Your task to perform on an android device: check the backup settings in the google photos Image 0: 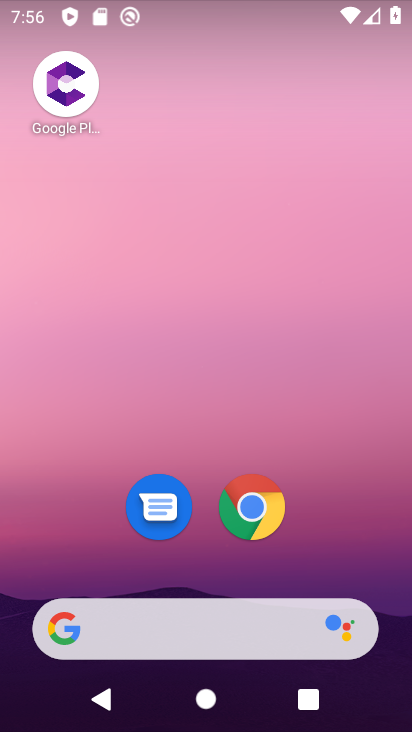
Step 0: drag from (317, 543) to (332, 85)
Your task to perform on an android device: check the backup settings in the google photos Image 1: 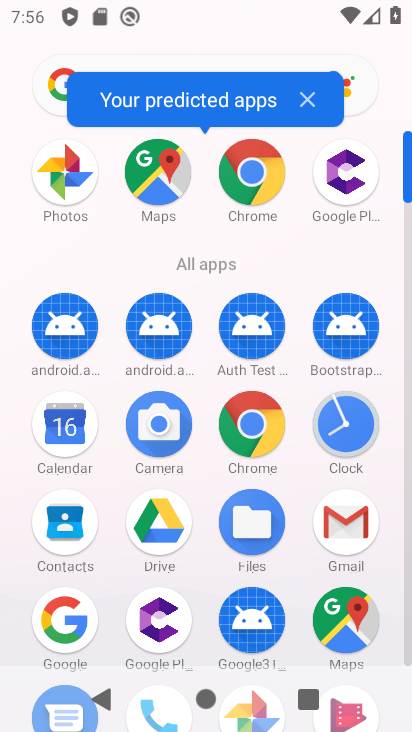
Step 1: drag from (283, 306) to (305, 39)
Your task to perform on an android device: check the backup settings in the google photos Image 2: 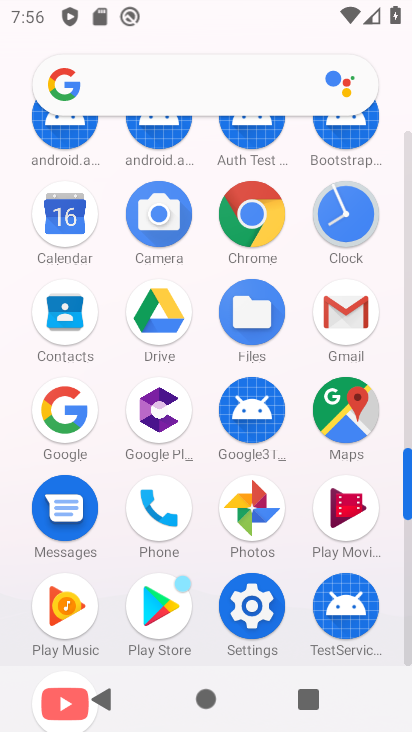
Step 2: click (242, 509)
Your task to perform on an android device: check the backup settings in the google photos Image 3: 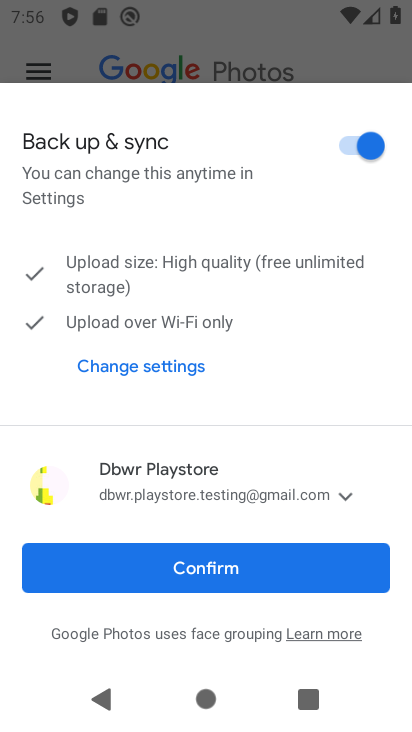
Step 3: click (251, 568)
Your task to perform on an android device: check the backup settings in the google photos Image 4: 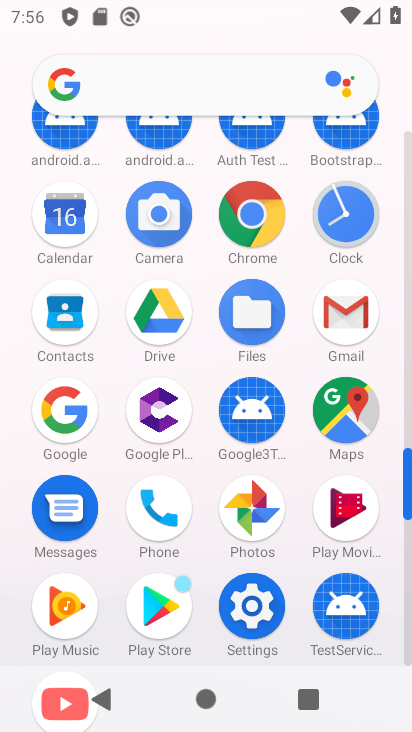
Step 4: click (253, 514)
Your task to perform on an android device: check the backup settings in the google photos Image 5: 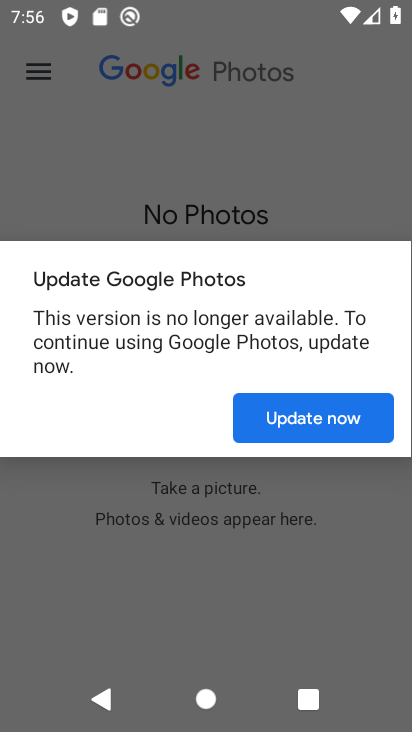
Step 5: click (292, 426)
Your task to perform on an android device: check the backup settings in the google photos Image 6: 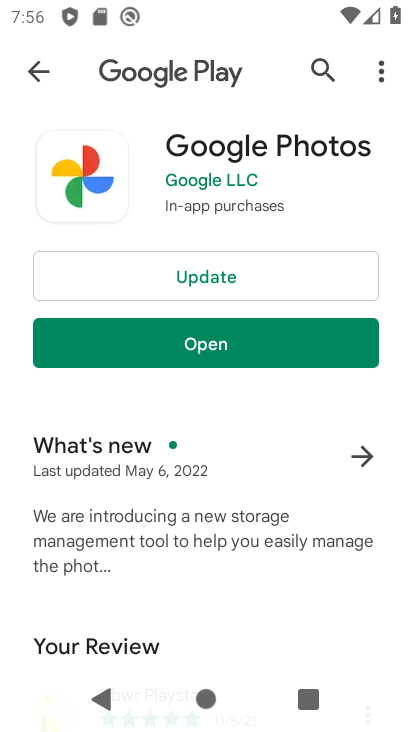
Step 6: click (297, 269)
Your task to perform on an android device: check the backup settings in the google photos Image 7: 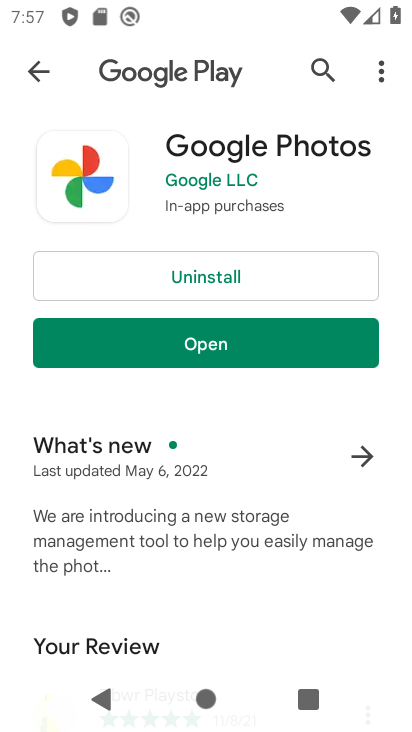
Step 7: click (263, 344)
Your task to perform on an android device: check the backup settings in the google photos Image 8: 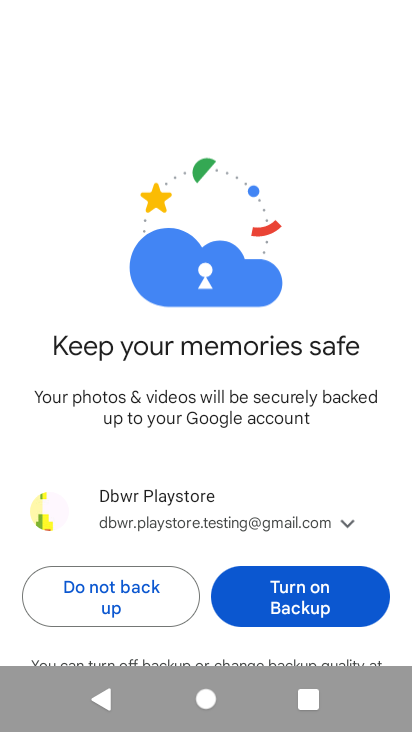
Step 8: click (336, 599)
Your task to perform on an android device: check the backup settings in the google photos Image 9: 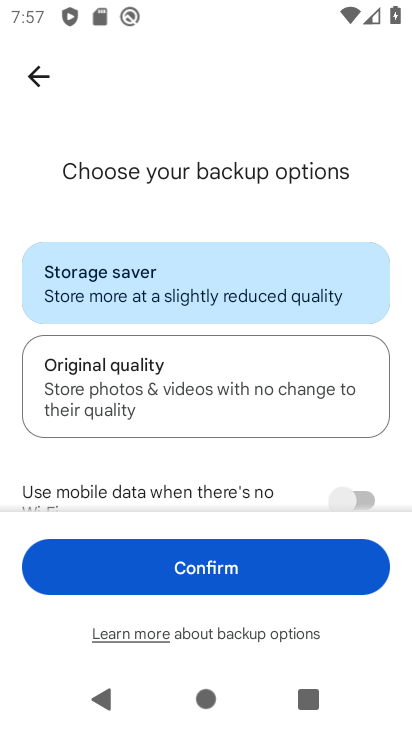
Step 9: click (253, 562)
Your task to perform on an android device: check the backup settings in the google photos Image 10: 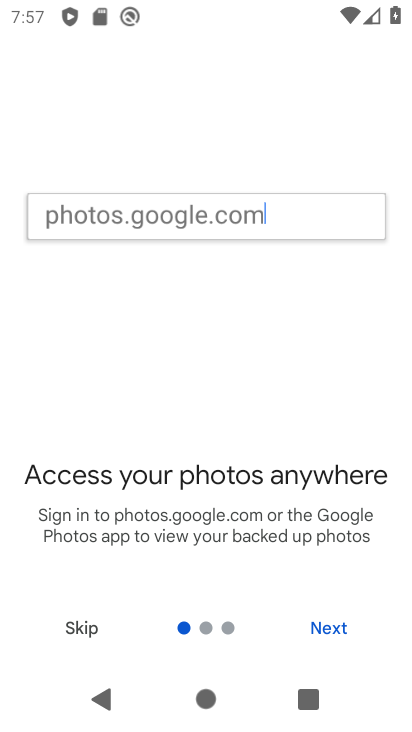
Step 10: click (334, 629)
Your task to perform on an android device: check the backup settings in the google photos Image 11: 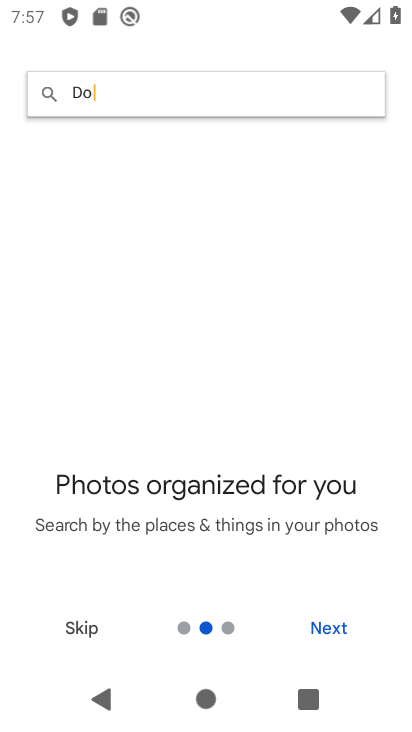
Step 11: click (334, 629)
Your task to perform on an android device: check the backup settings in the google photos Image 12: 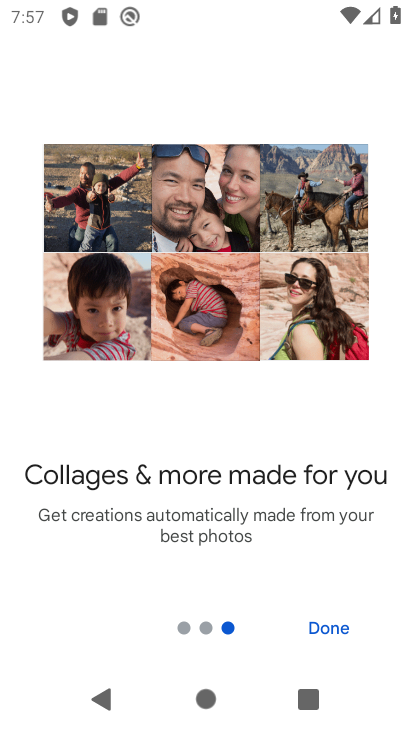
Step 12: click (334, 629)
Your task to perform on an android device: check the backup settings in the google photos Image 13: 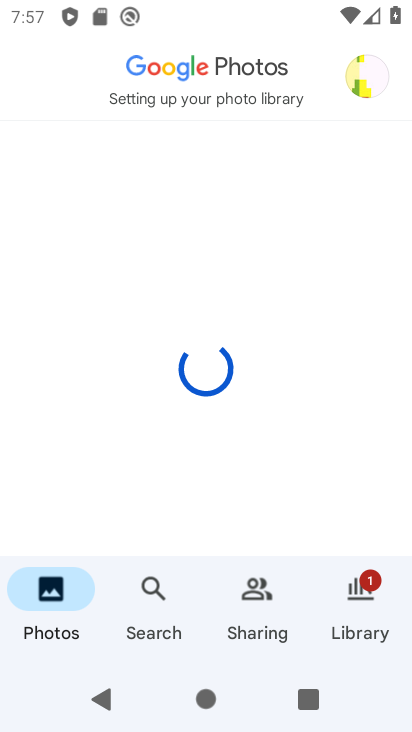
Step 13: click (371, 72)
Your task to perform on an android device: check the backup settings in the google photos Image 14: 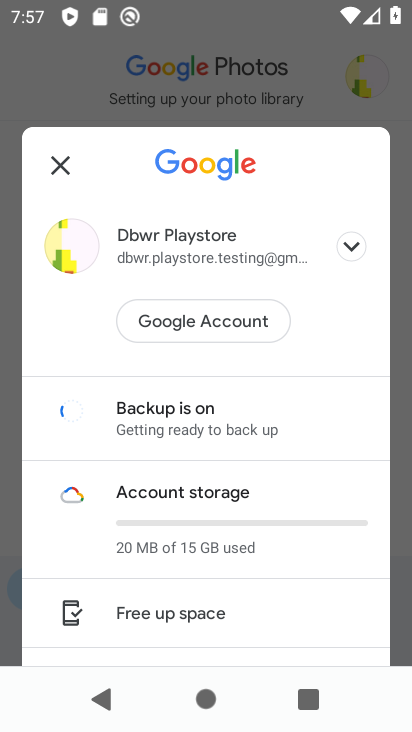
Step 14: click (170, 428)
Your task to perform on an android device: check the backup settings in the google photos Image 15: 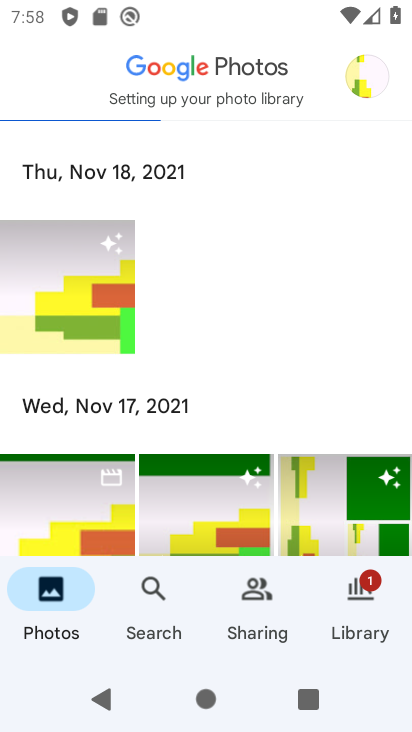
Step 15: click (356, 62)
Your task to perform on an android device: check the backup settings in the google photos Image 16: 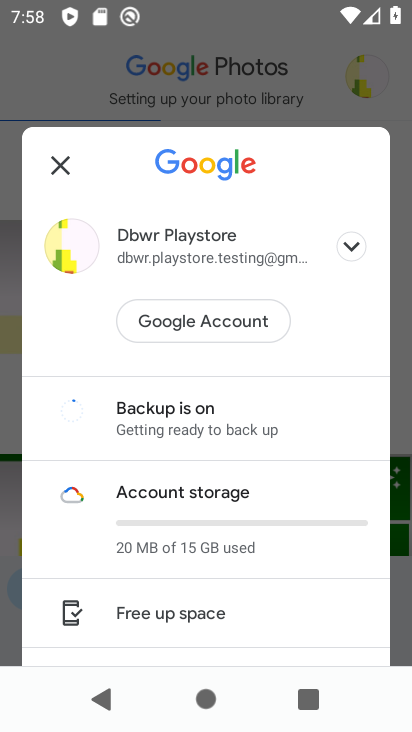
Step 16: click (206, 410)
Your task to perform on an android device: check the backup settings in the google photos Image 17: 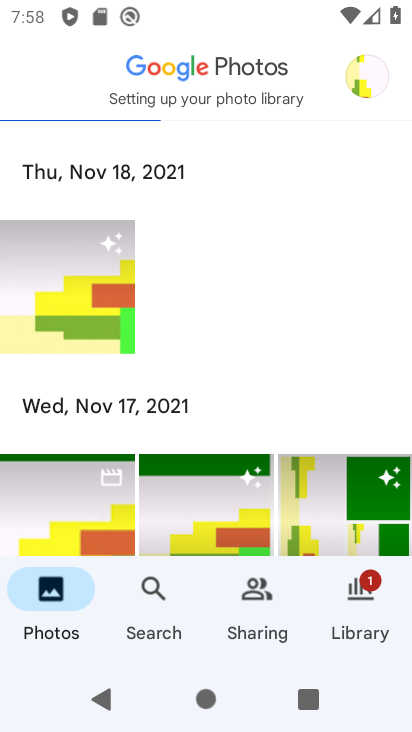
Step 17: task complete